Your task to perform on an android device: toggle translation in the chrome app Image 0: 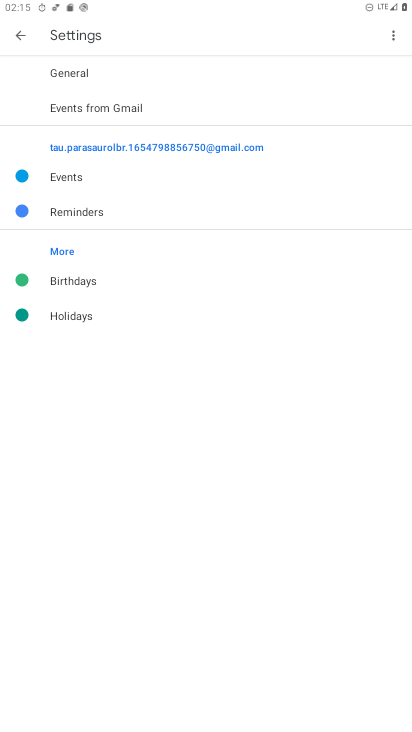
Step 0: press home button
Your task to perform on an android device: toggle translation in the chrome app Image 1: 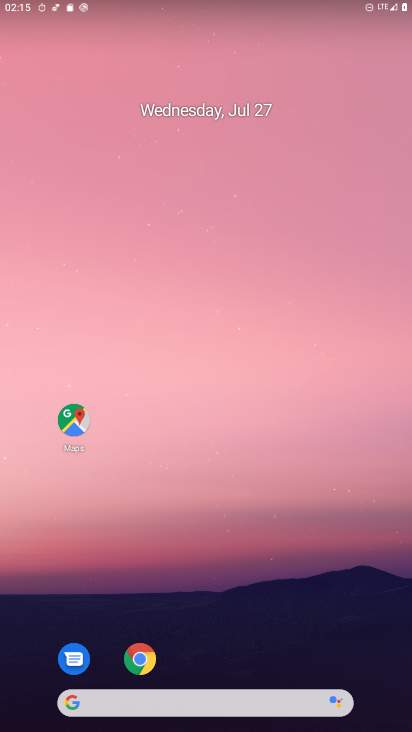
Step 1: drag from (258, 574) to (183, 5)
Your task to perform on an android device: toggle translation in the chrome app Image 2: 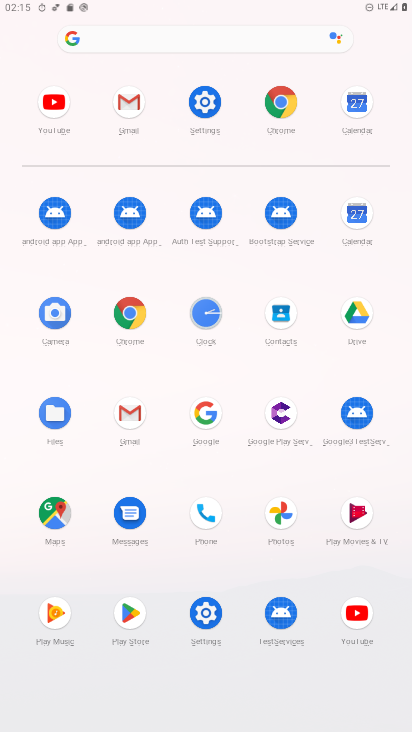
Step 2: click (280, 106)
Your task to perform on an android device: toggle translation in the chrome app Image 3: 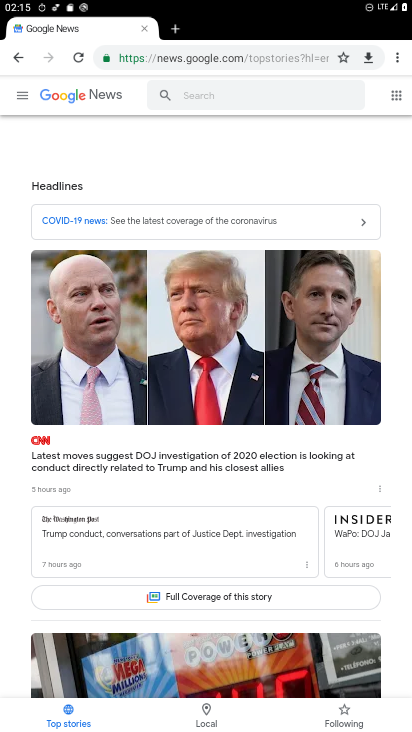
Step 3: drag from (393, 54) to (298, 381)
Your task to perform on an android device: toggle translation in the chrome app Image 4: 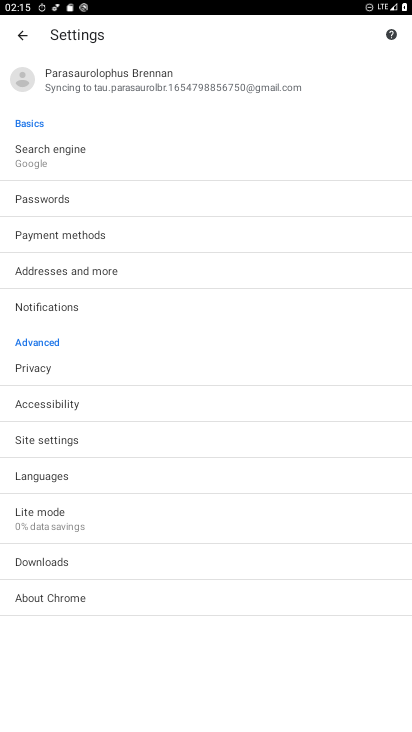
Step 4: click (44, 482)
Your task to perform on an android device: toggle translation in the chrome app Image 5: 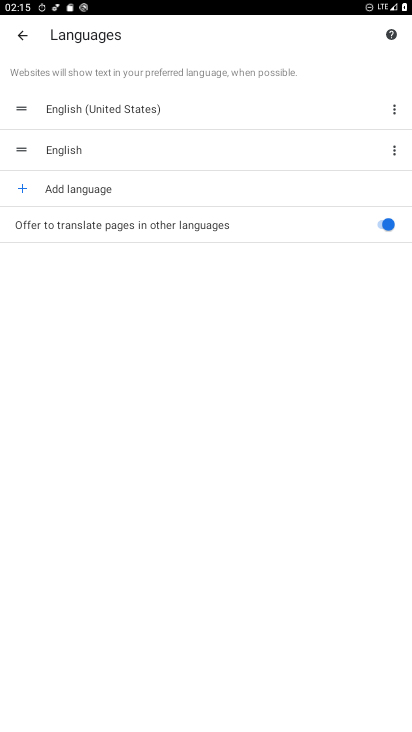
Step 5: click (396, 241)
Your task to perform on an android device: toggle translation in the chrome app Image 6: 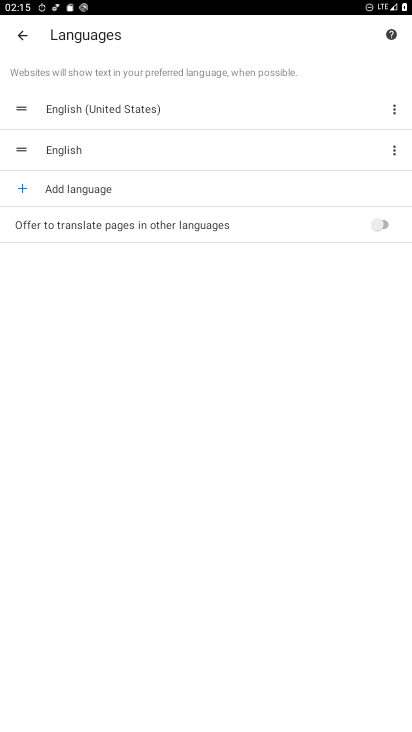
Step 6: task complete